Your task to perform on an android device: Show me the alarms in the clock app Image 0: 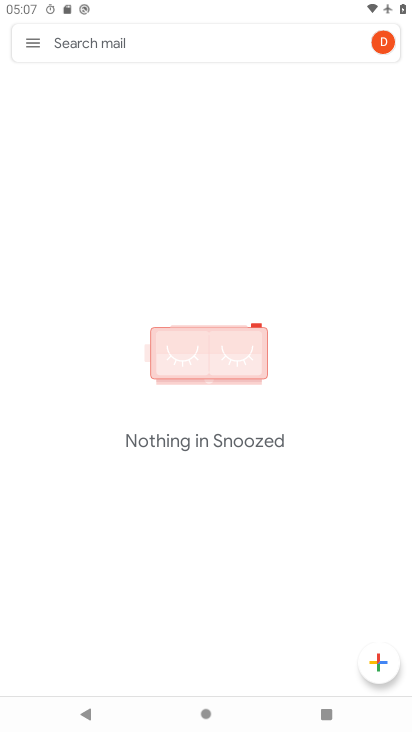
Step 0: press home button
Your task to perform on an android device: Show me the alarms in the clock app Image 1: 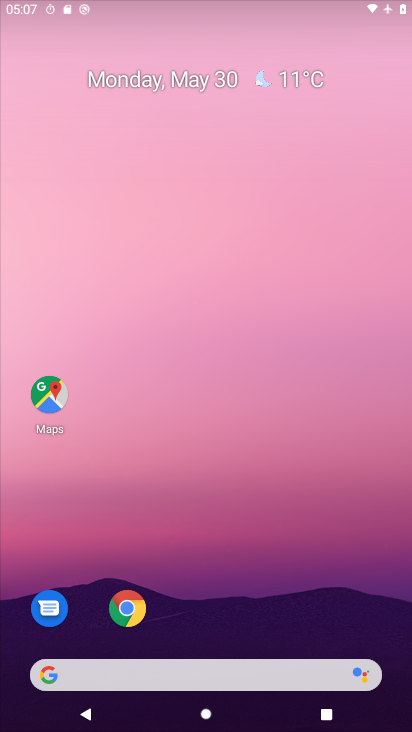
Step 1: drag from (282, 564) to (200, 0)
Your task to perform on an android device: Show me the alarms in the clock app Image 2: 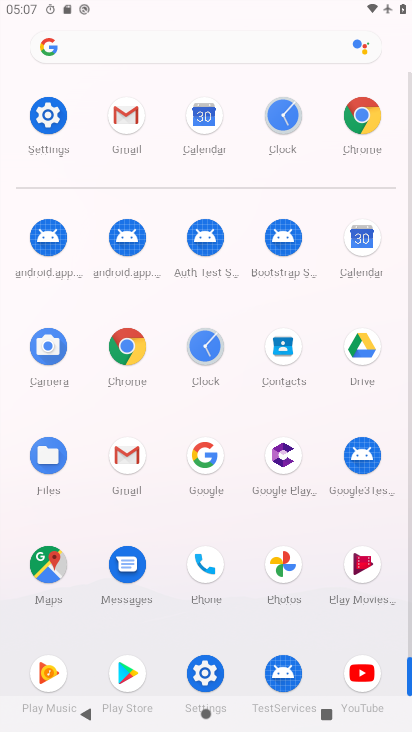
Step 2: click (283, 119)
Your task to perform on an android device: Show me the alarms in the clock app Image 3: 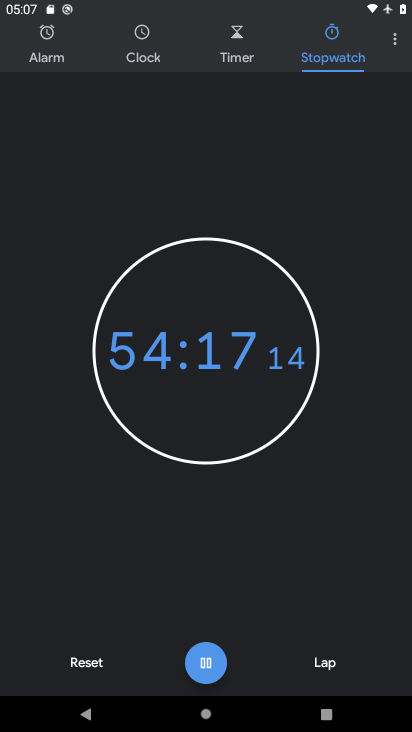
Step 3: click (56, 42)
Your task to perform on an android device: Show me the alarms in the clock app Image 4: 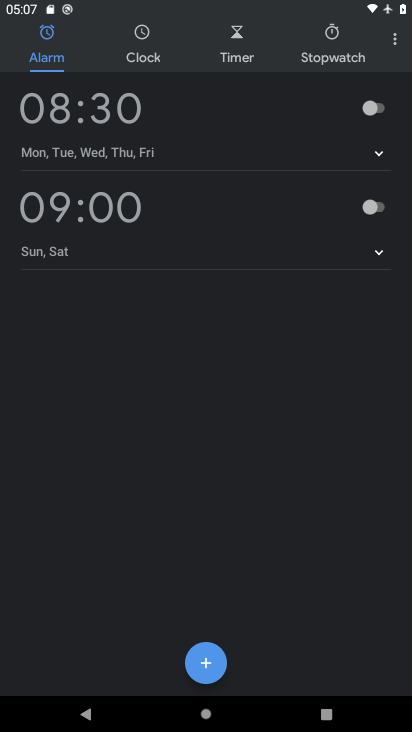
Step 4: task complete